Your task to perform on an android device: change the clock display to analog Image 0: 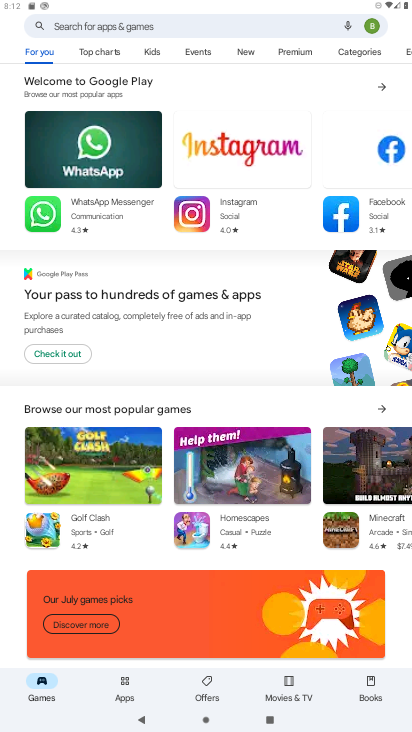
Step 0: press home button
Your task to perform on an android device: change the clock display to analog Image 1: 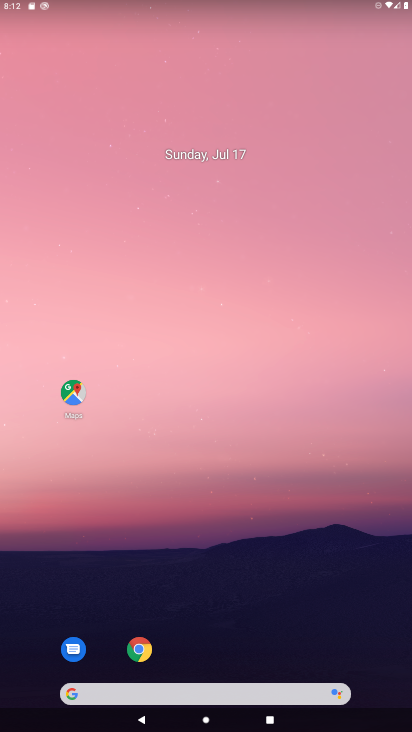
Step 1: drag from (231, 672) to (168, 18)
Your task to perform on an android device: change the clock display to analog Image 2: 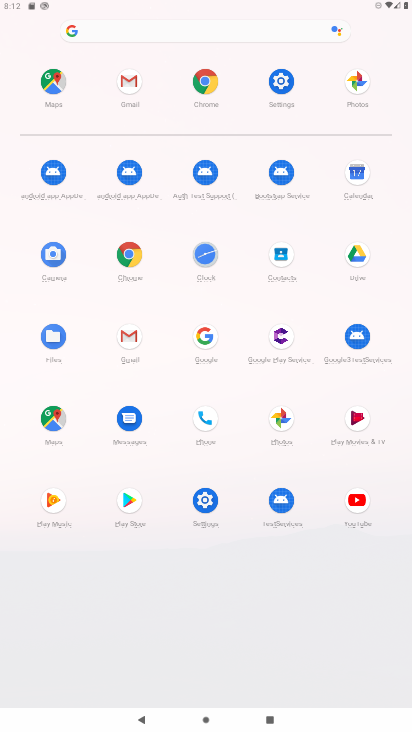
Step 2: click (202, 245)
Your task to perform on an android device: change the clock display to analog Image 3: 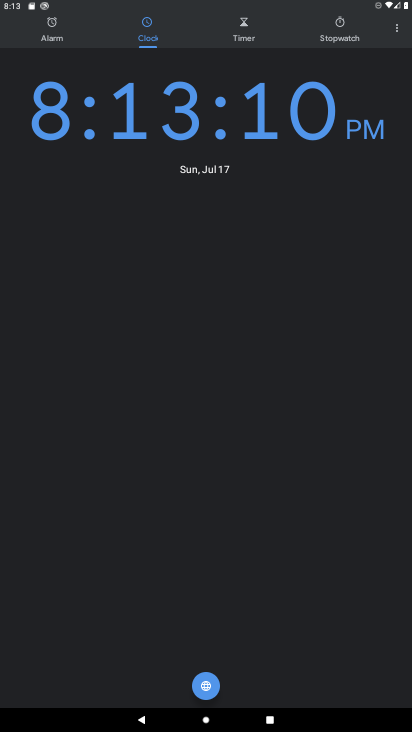
Step 3: click (401, 31)
Your task to perform on an android device: change the clock display to analog Image 4: 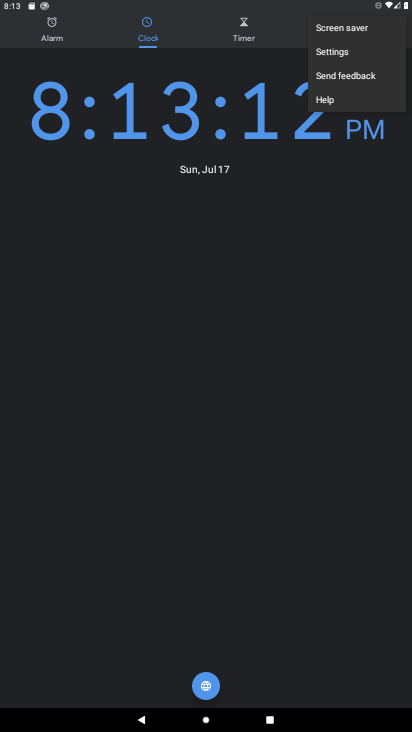
Step 4: click (330, 49)
Your task to perform on an android device: change the clock display to analog Image 5: 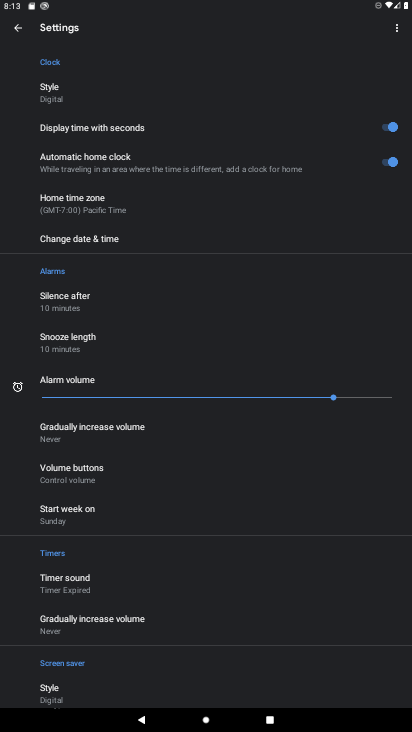
Step 5: drag from (175, 537) to (177, 370)
Your task to perform on an android device: change the clock display to analog Image 6: 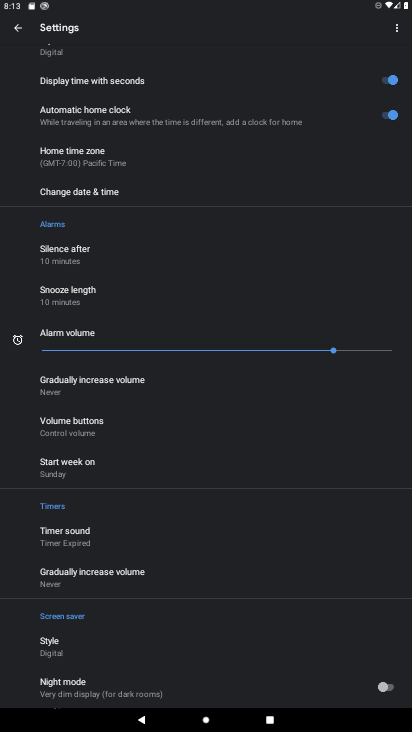
Step 6: drag from (82, 86) to (115, 389)
Your task to perform on an android device: change the clock display to analog Image 7: 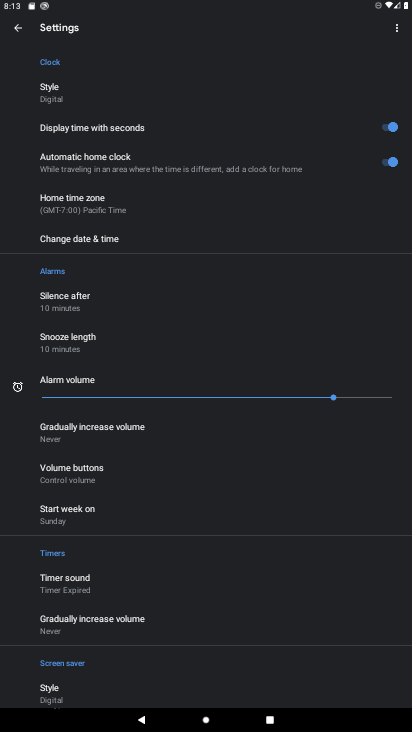
Step 7: click (71, 96)
Your task to perform on an android device: change the clock display to analog Image 8: 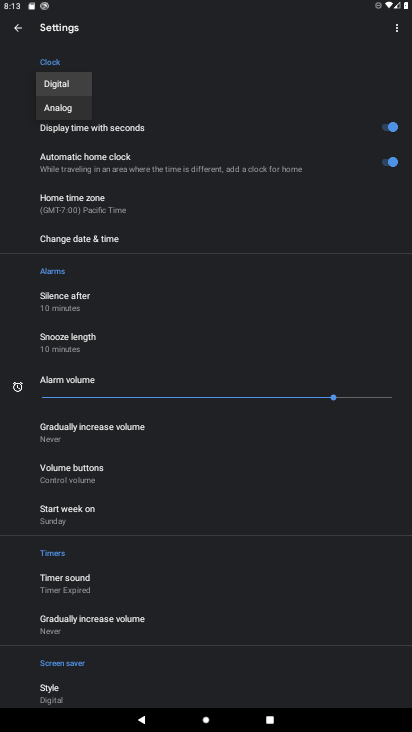
Step 8: click (77, 104)
Your task to perform on an android device: change the clock display to analog Image 9: 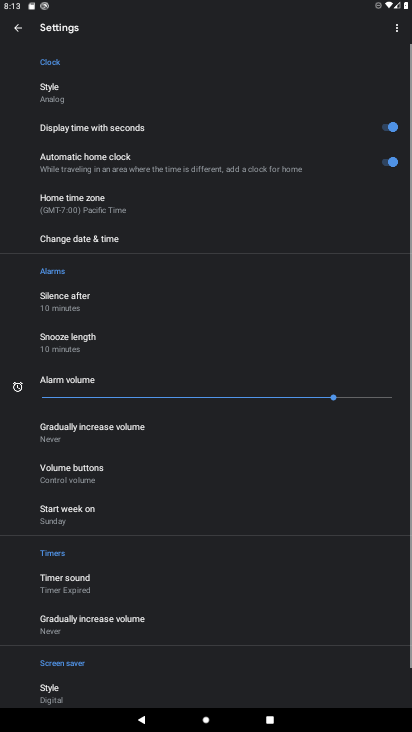
Step 9: task complete